Your task to perform on an android device: Search for "sony triple a" on target.com, select the first entry, and add it to the cart. Image 0: 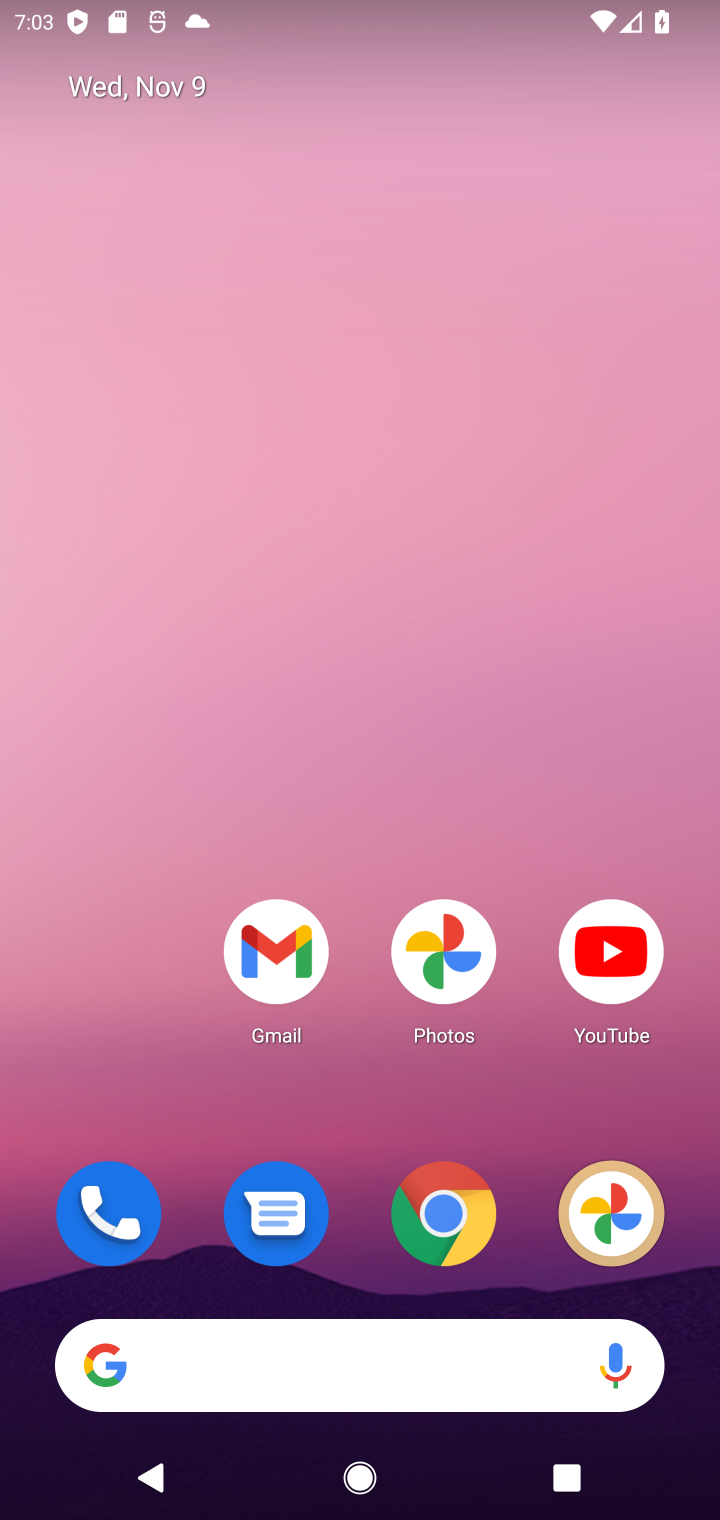
Step 0: click (450, 1215)
Your task to perform on an android device: Search for "sony triple a" on target.com, select the first entry, and add it to the cart. Image 1: 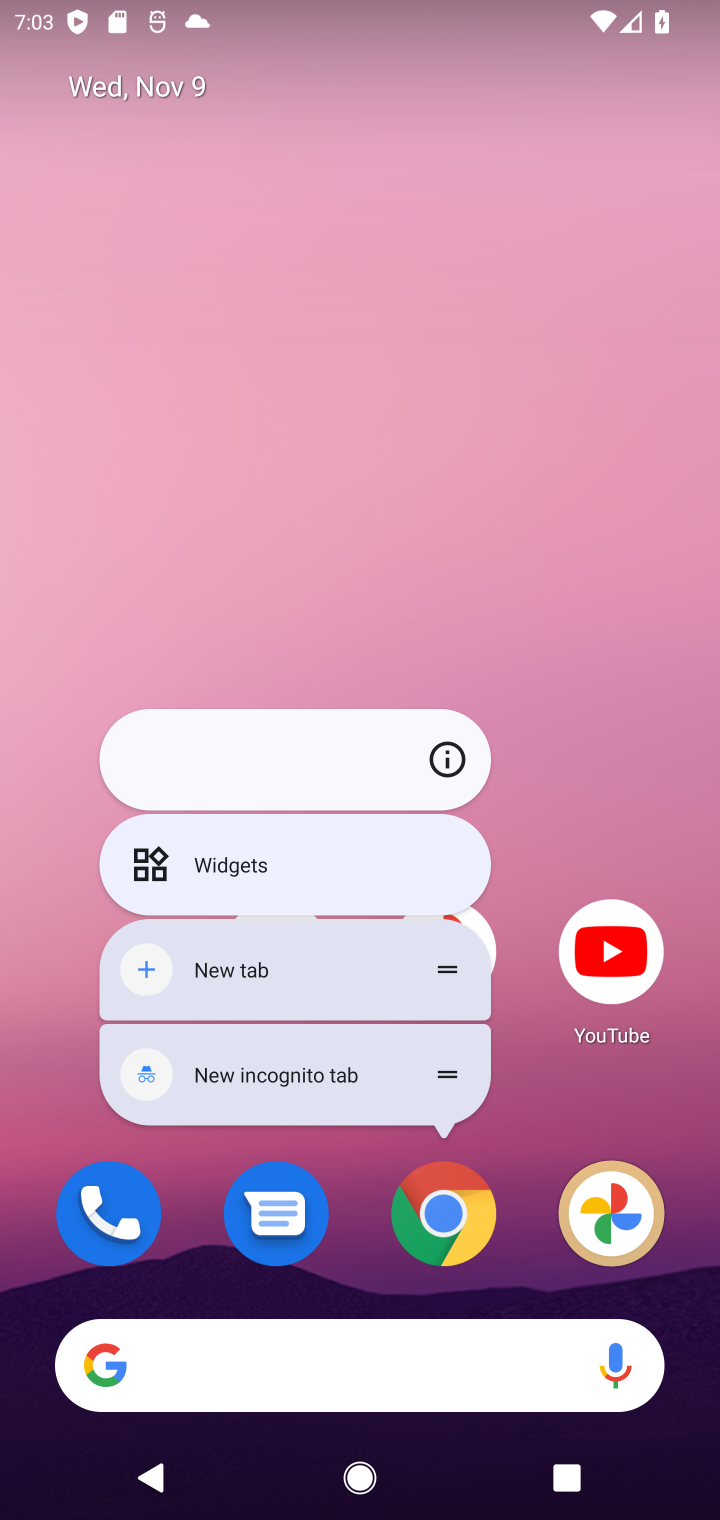
Step 1: click (457, 1213)
Your task to perform on an android device: Search for "sony triple a" on target.com, select the first entry, and add it to the cart. Image 2: 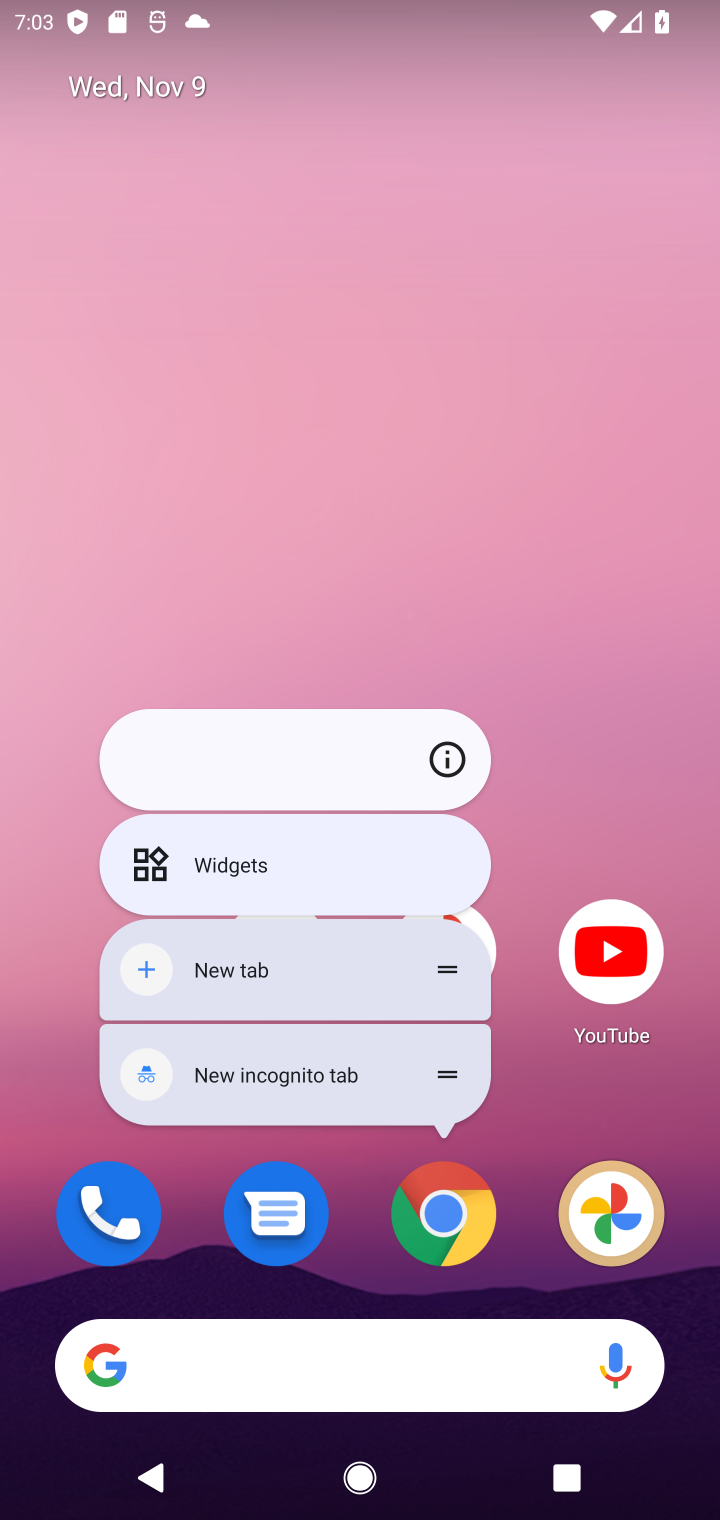
Step 2: click (457, 1213)
Your task to perform on an android device: Search for "sony triple a" on target.com, select the first entry, and add it to the cart. Image 3: 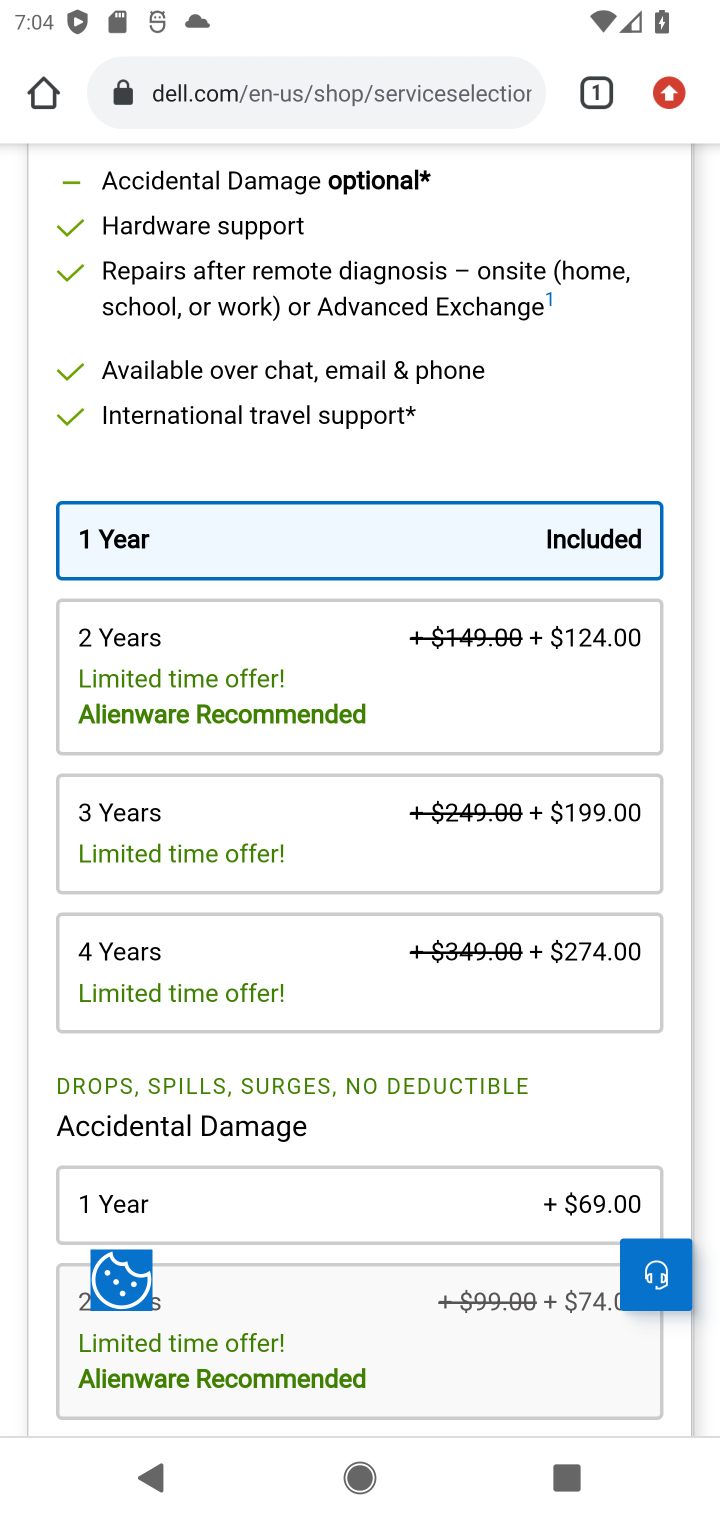
Step 3: click (169, 94)
Your task to perform on an android device: Search for "sony triple a" on target.com, select the first entry, and add it to the cart. Image 4: 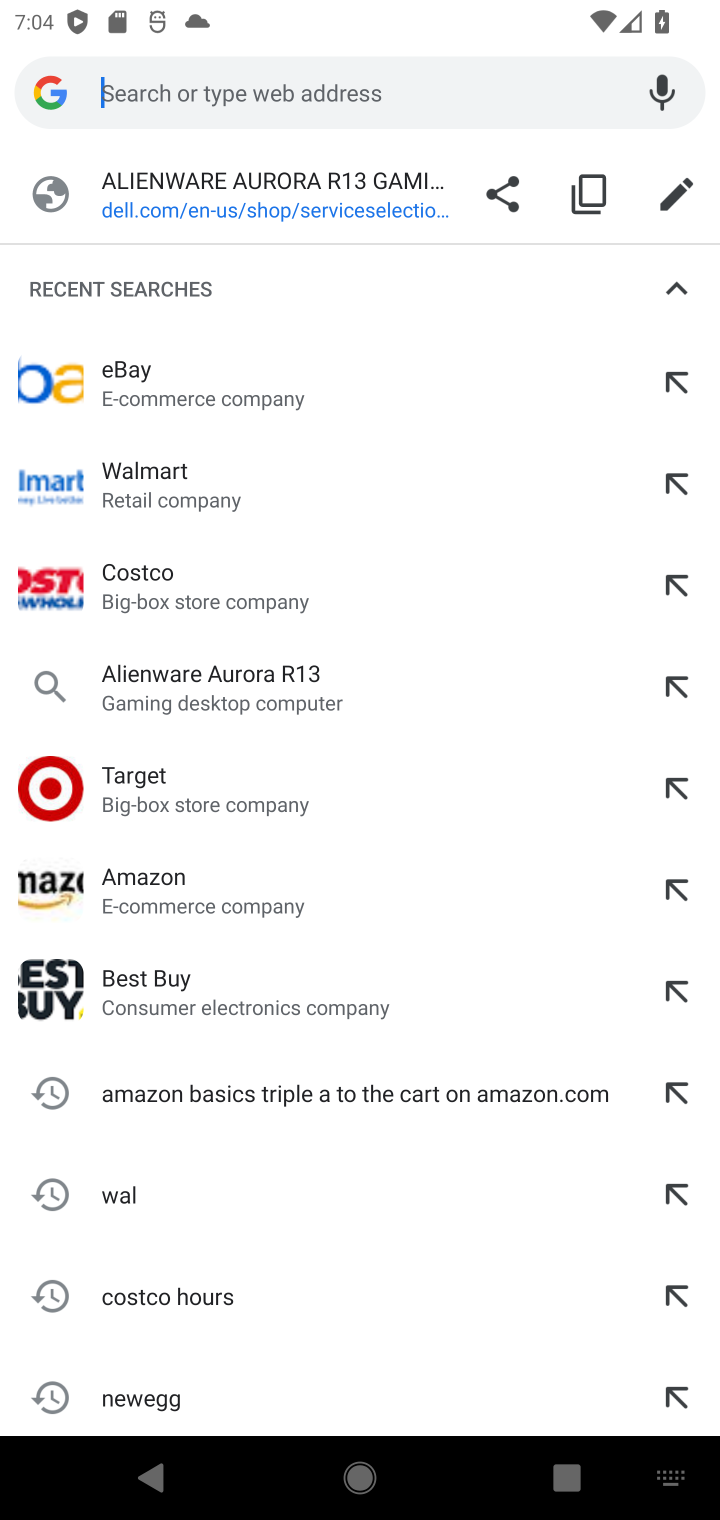
Step 4: type "target"
Your task to perform on an android device: Search for "sony triple a" on target.com, select the first entry, and add it to the cart. Image 5: 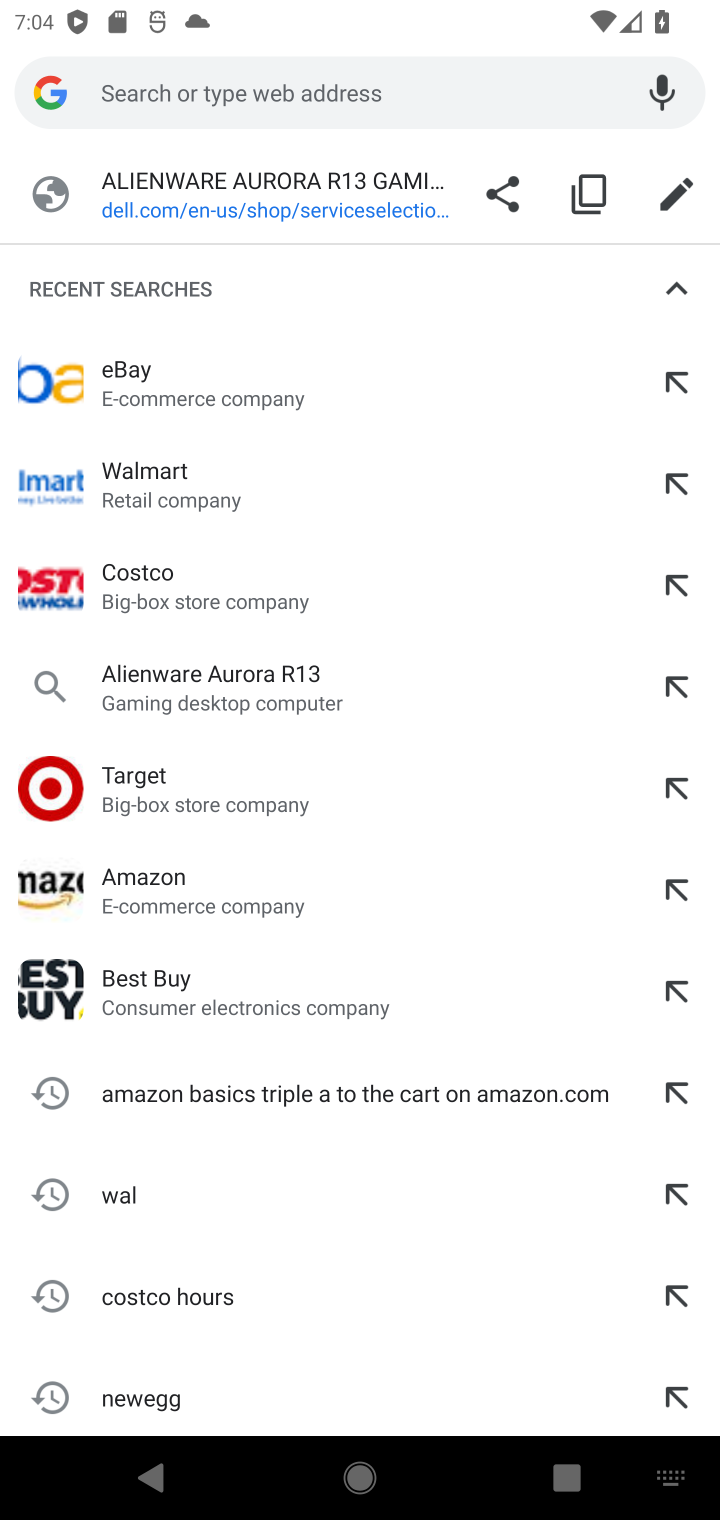
Step 5: click (154, 785)
Your task to perform on an android device: Search for "sony triple a" on target.com, select the first entry, and add it to the cart. Image 6: 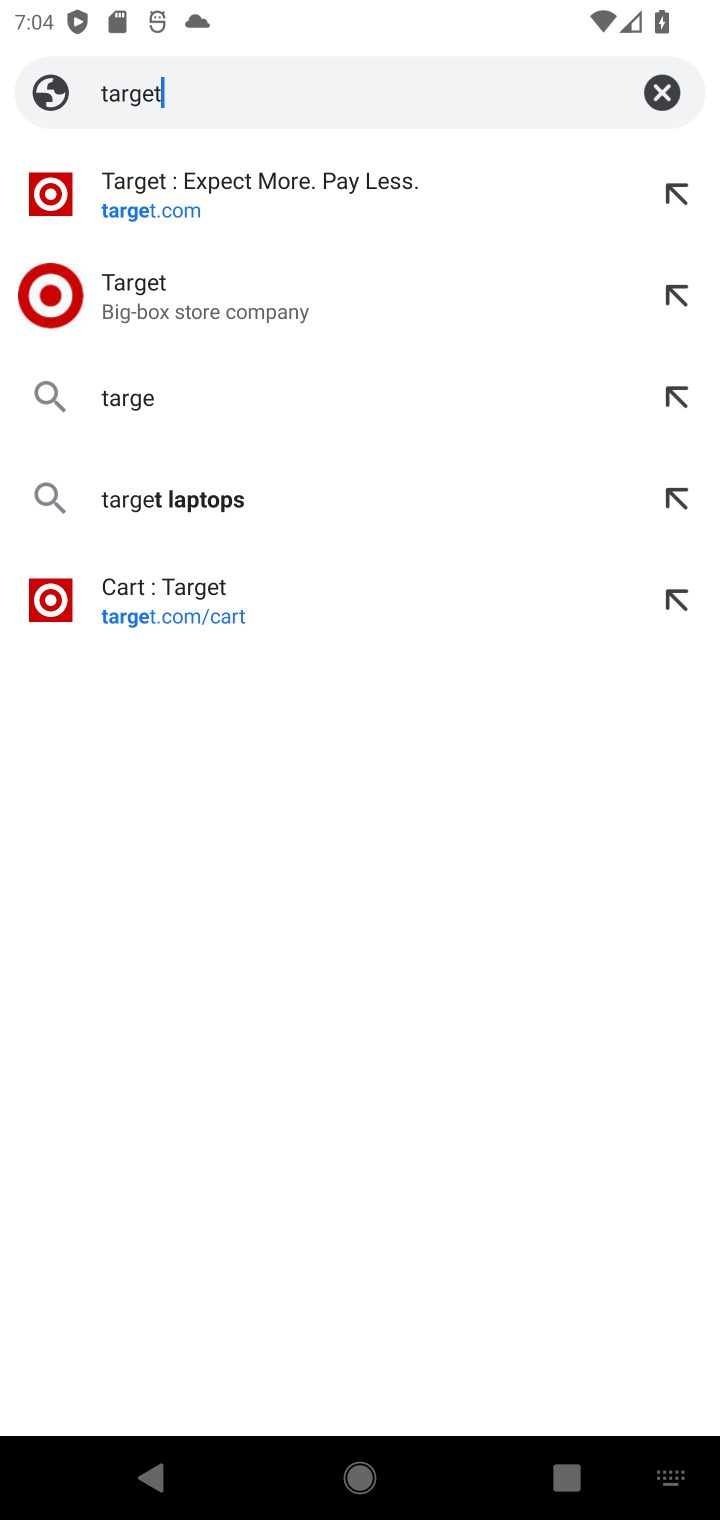
Step 6: click (135, 292)
Your task to perform on an android device: Search for "sony triple a" on target.com, select the first entry, and add it to the cart. Image 7: 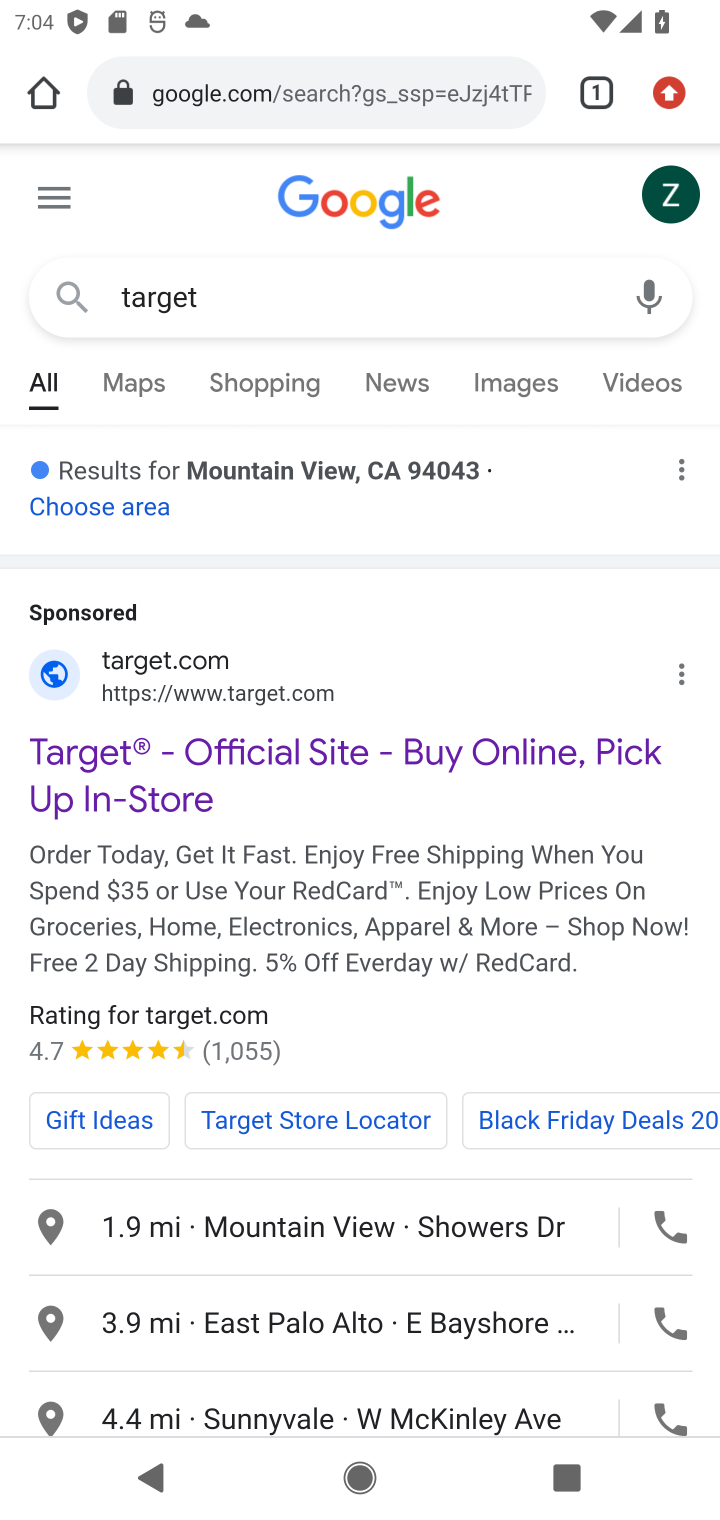
Step 7: drag from (295, 1001) to (382, 389)
Your task to perform on an android device: Search for "sony triple a" on target.com, select the first entry, and add it to the cart. Image 8: 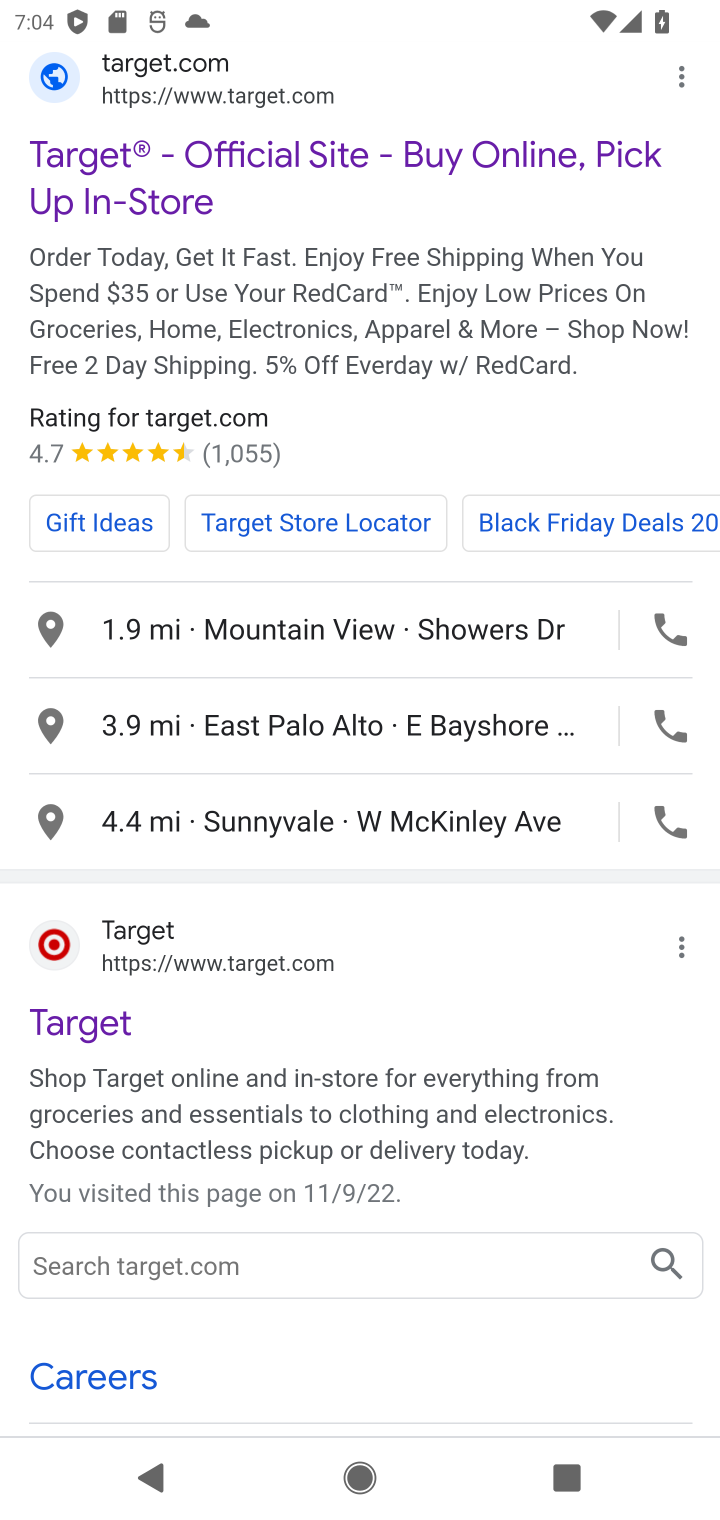
Step 8: click (88, 1034)
Your task to perform on an android device: Search for "sony triple a" on target.com, select the first entry, and add it to the cart. Image 9: 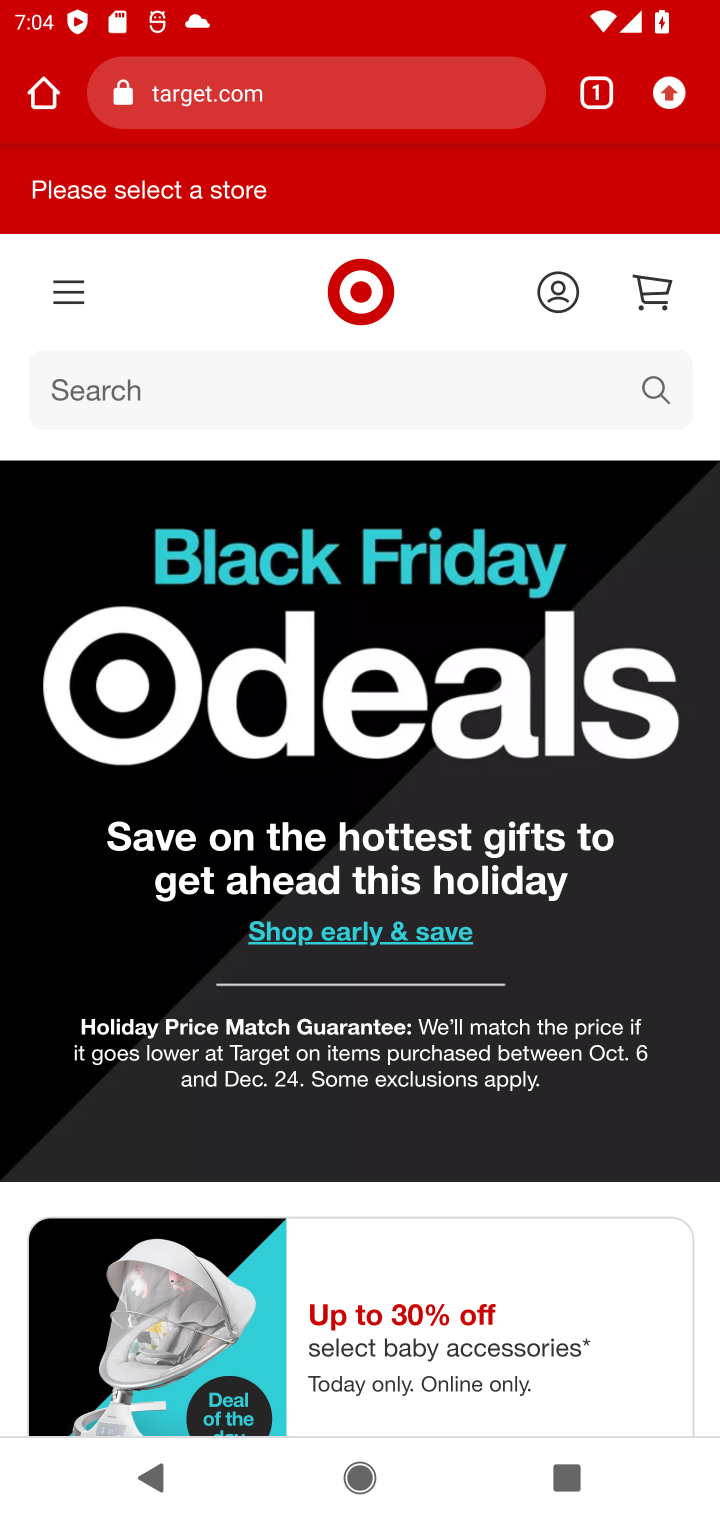
Step 9: click (224, 399)
Your task to perform on an android device: Search for "sony triple a" on target.com, select the first entry, and add it to the cart. Image 10: 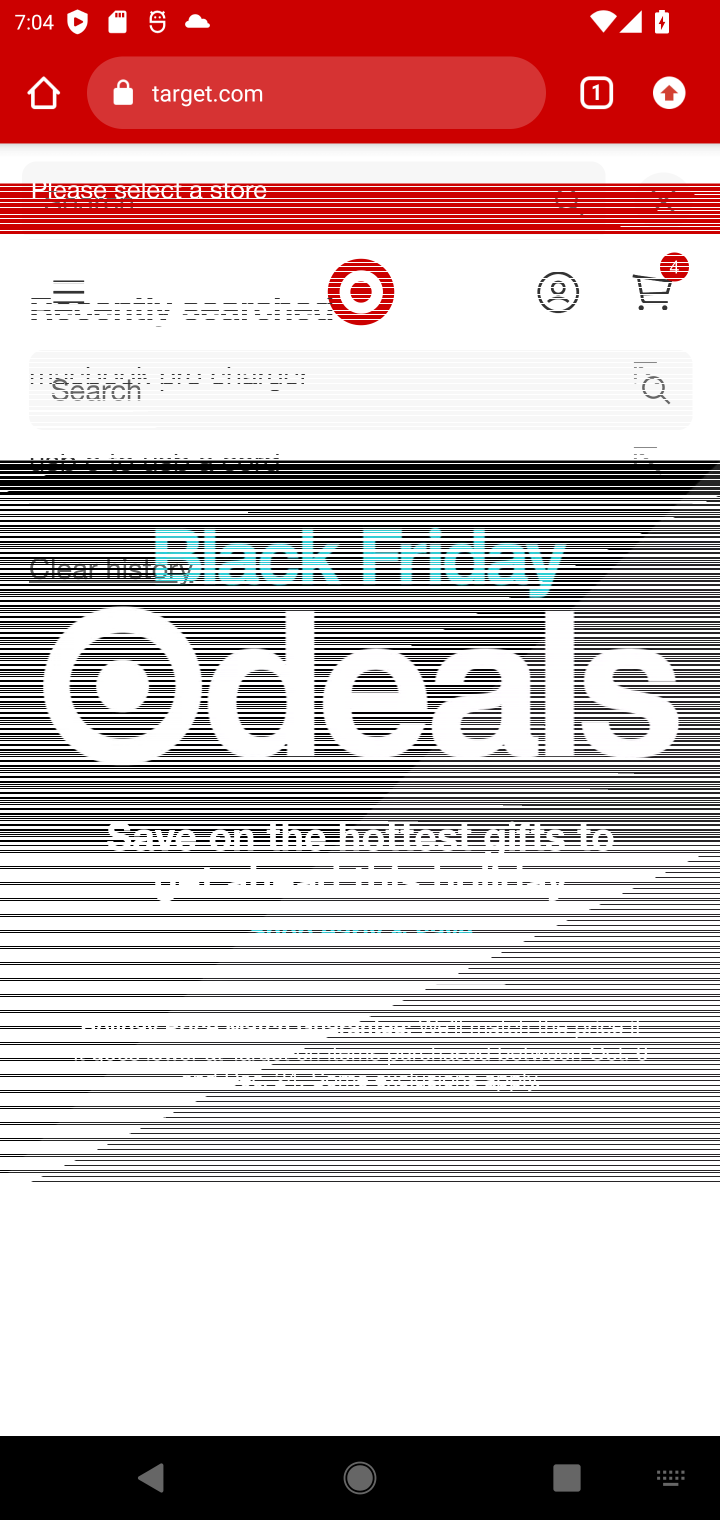
Step 10: type "sony triple"
Your task to perform on an android device: Search for "sony triple a" on target.com, select the first entry, and add it to the cart. Image 11: 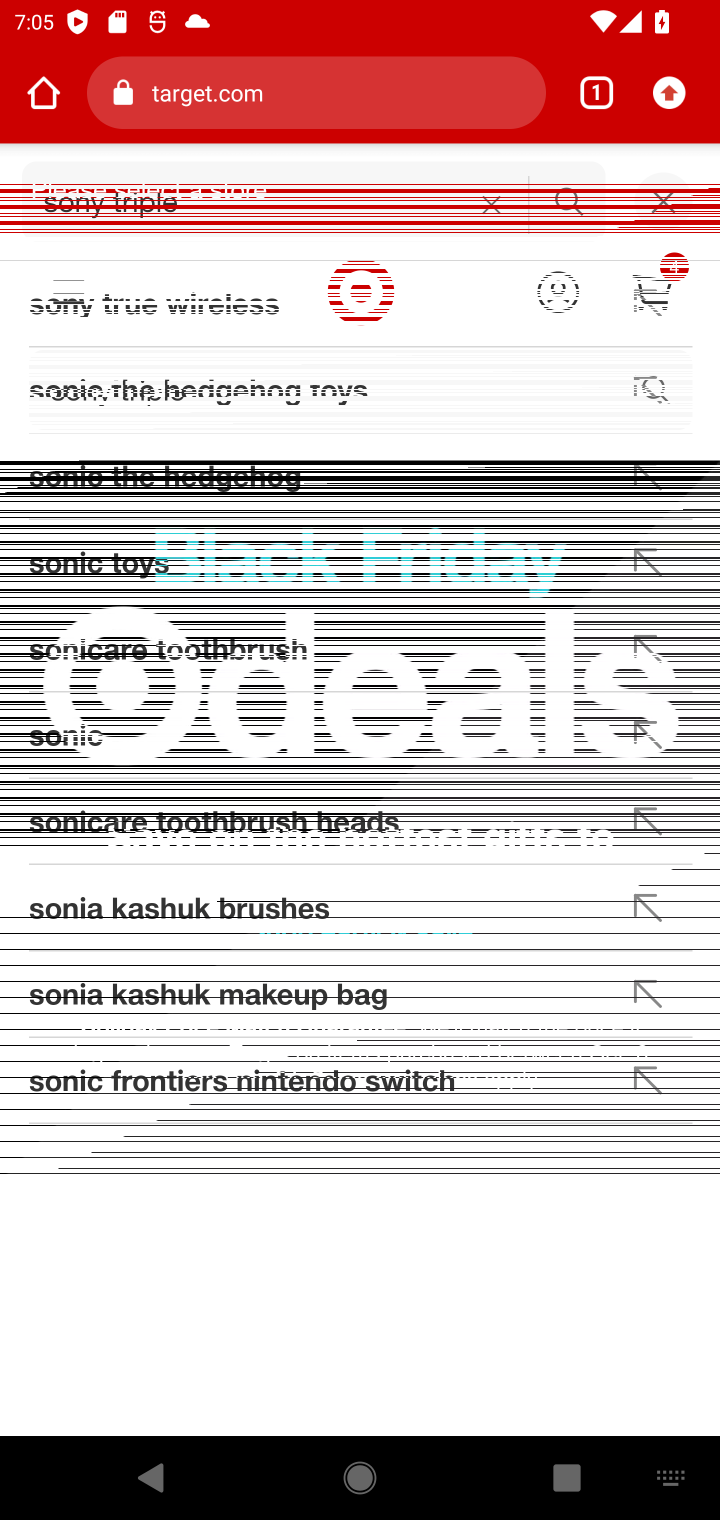
Step 11: click (134, 310)
Your task to perform on an android device: Search for "sony triple a" on target.com, select the first entry, and add it to the cart. Image 12: 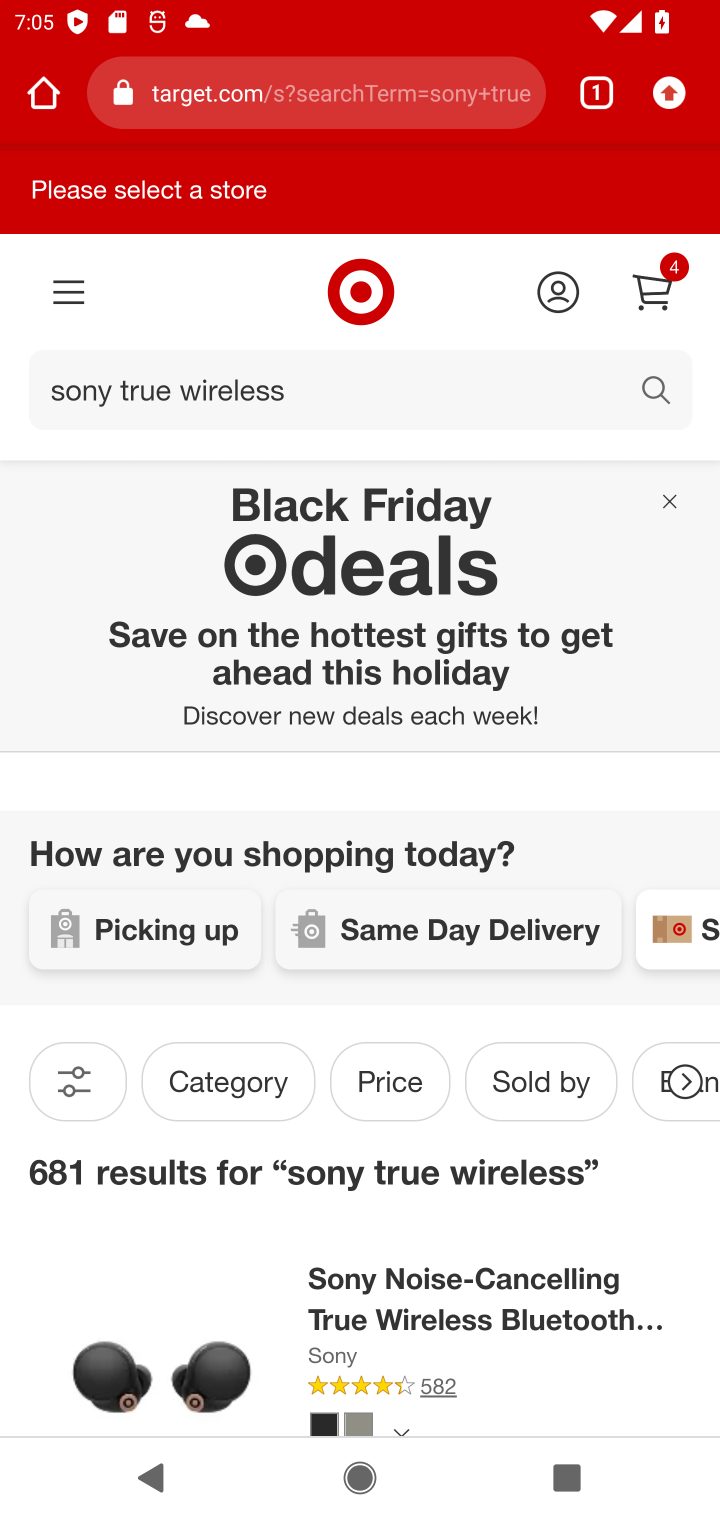
Step 12: click (497, 1309)
Your task to perform on an android device: Search for "sony triple a" on target.com, select the first entry, and add it to the cart. Image 13: 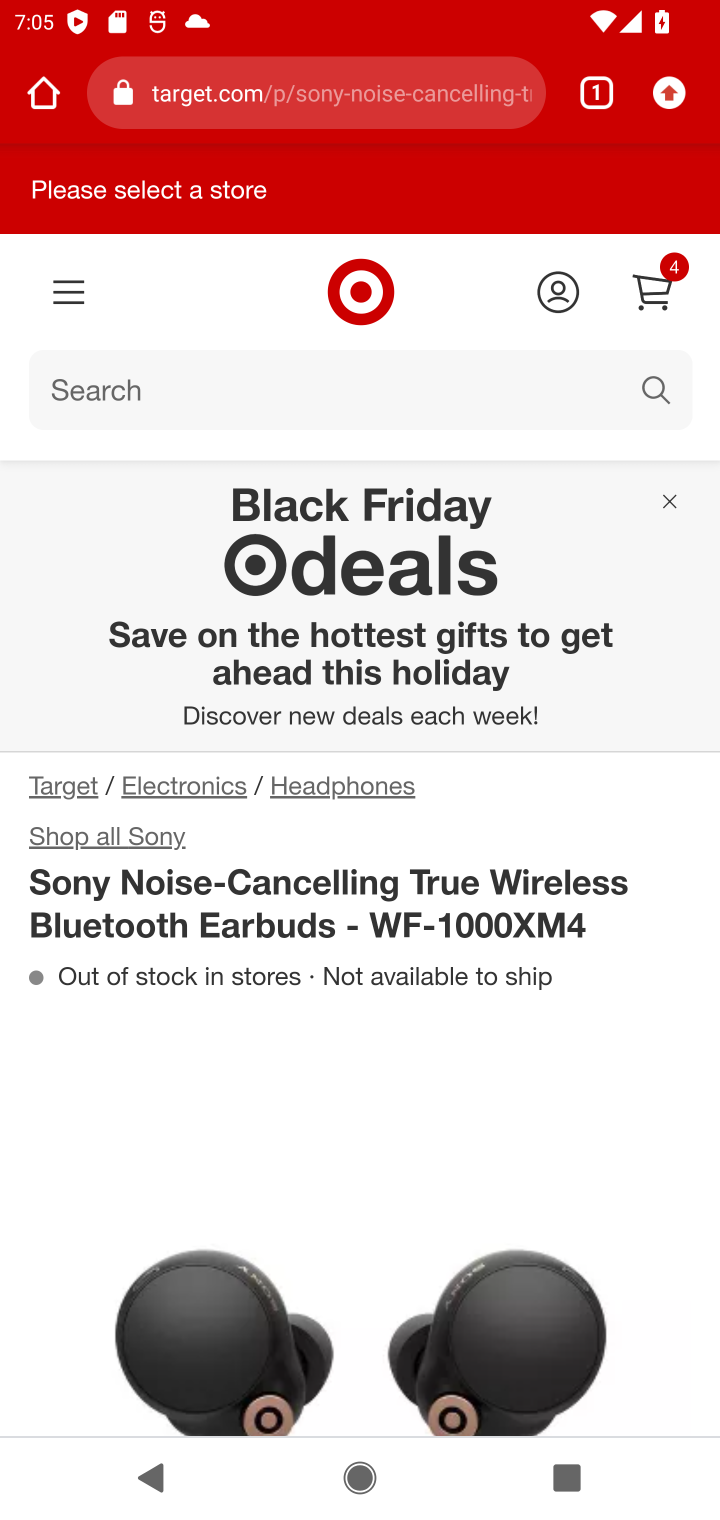
Step 13: drag from (357, 1093) to (391, 588)
Your task to perform on an android device: Search for "sony triple a" on target.com, select the first entry, and add it to the cart. Image 14: 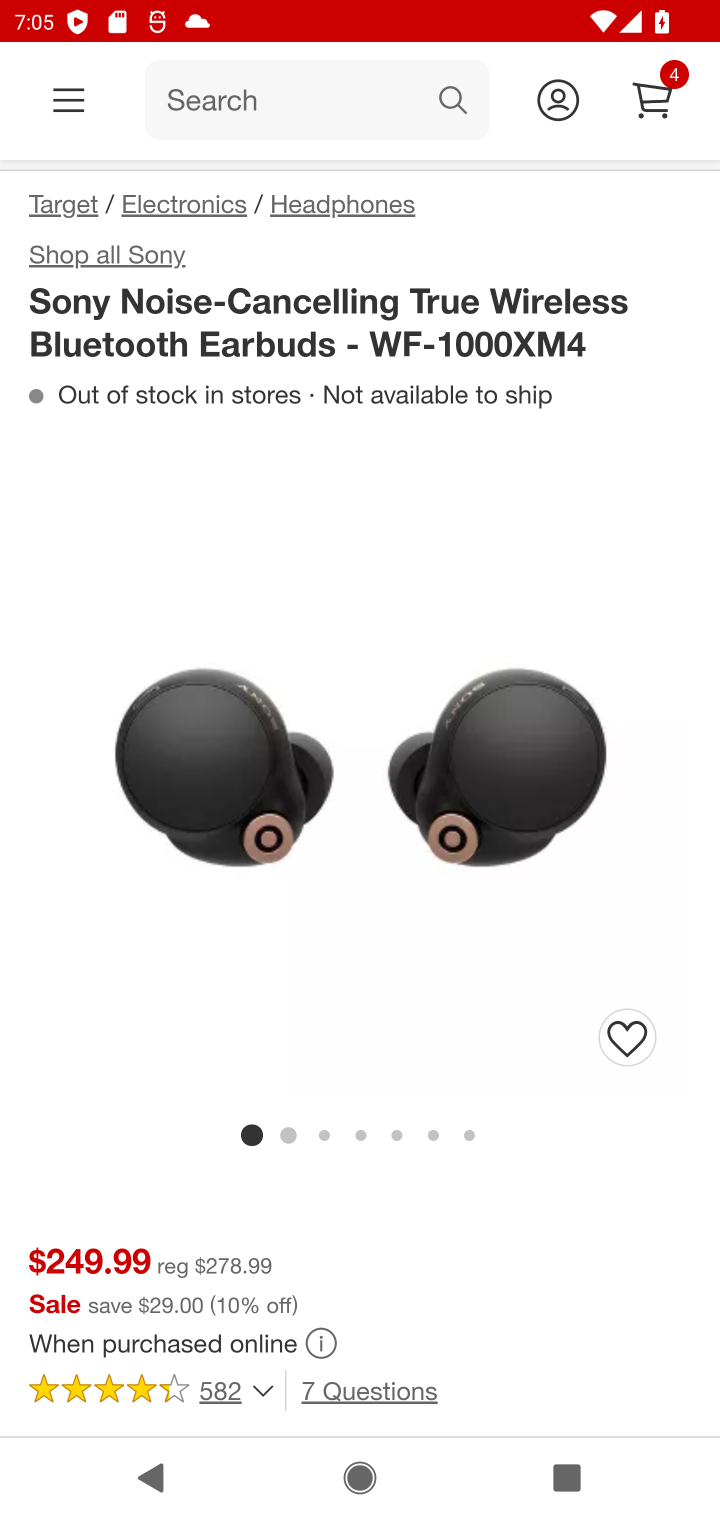
Step 14: drag from (394, 1160) to (476, 227)
Your task to perform on an android device: Search for "sony triple a" on target.com, select the first entry, and add it to the cart. Image 15: 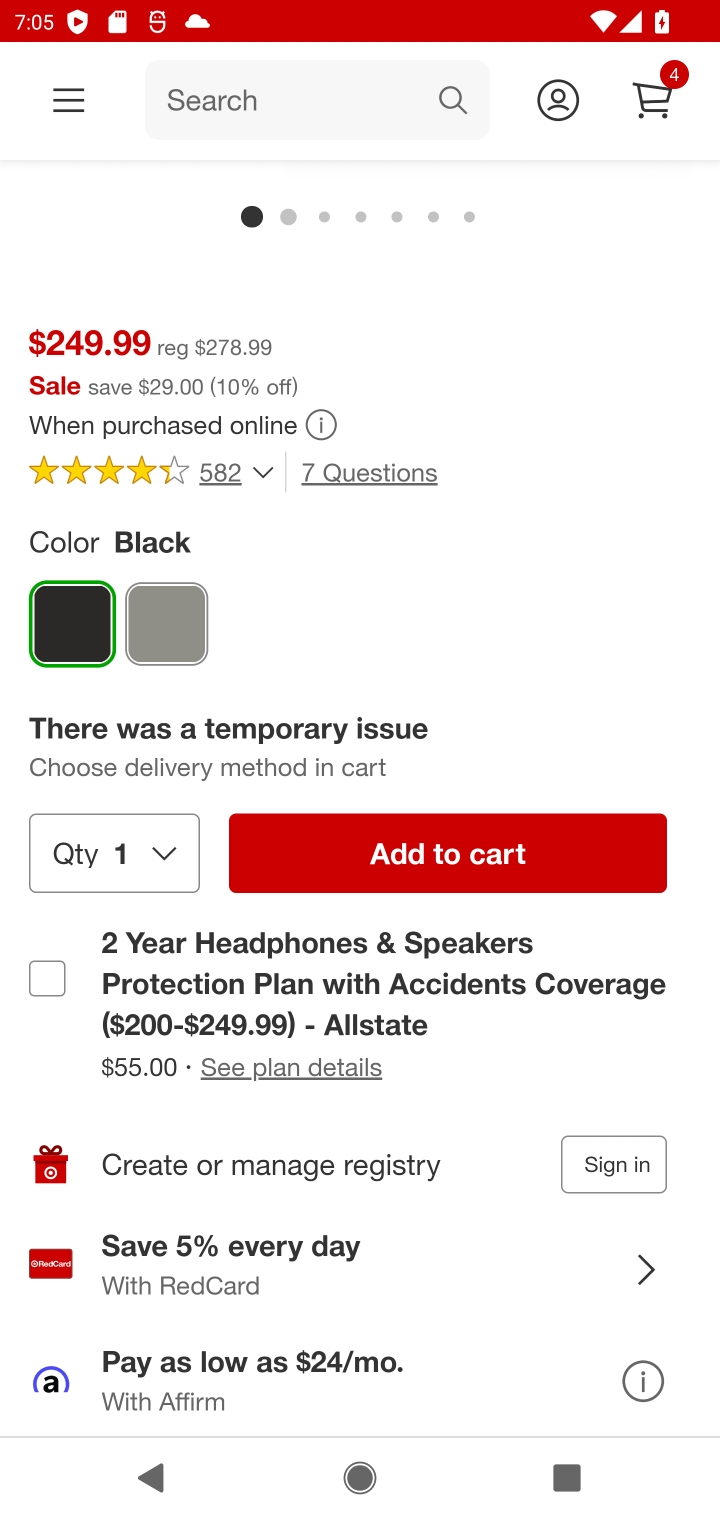
Step 15: click (437, 861)
Your task to perform on an android device: Search for "sony triple a" on target.com, select the first entry, and add it to the cart. Image 16: 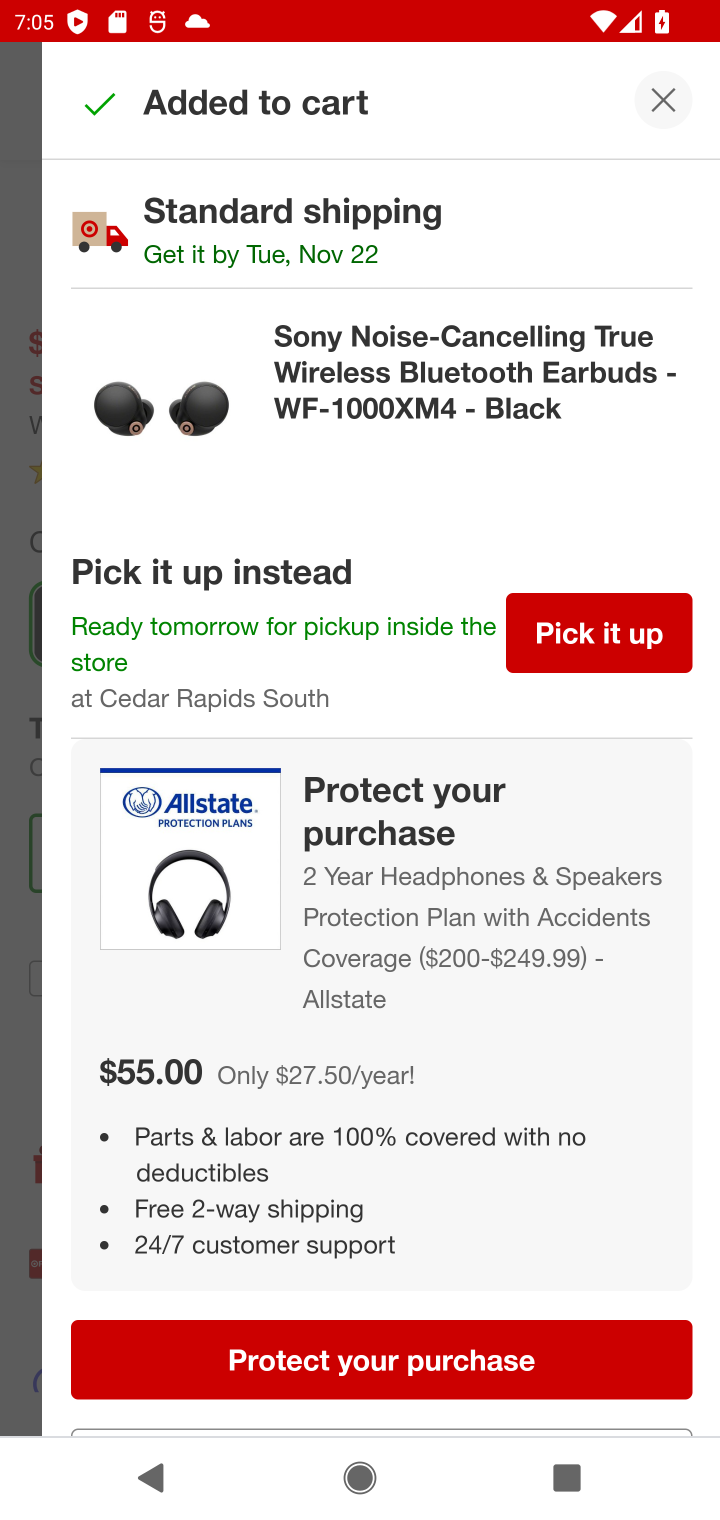
Step 16: click (373, 1358)
Your task to perform on an android device: Search for "sony triple a" on target.com, select the first entry, and add it to the cart. Image 17: 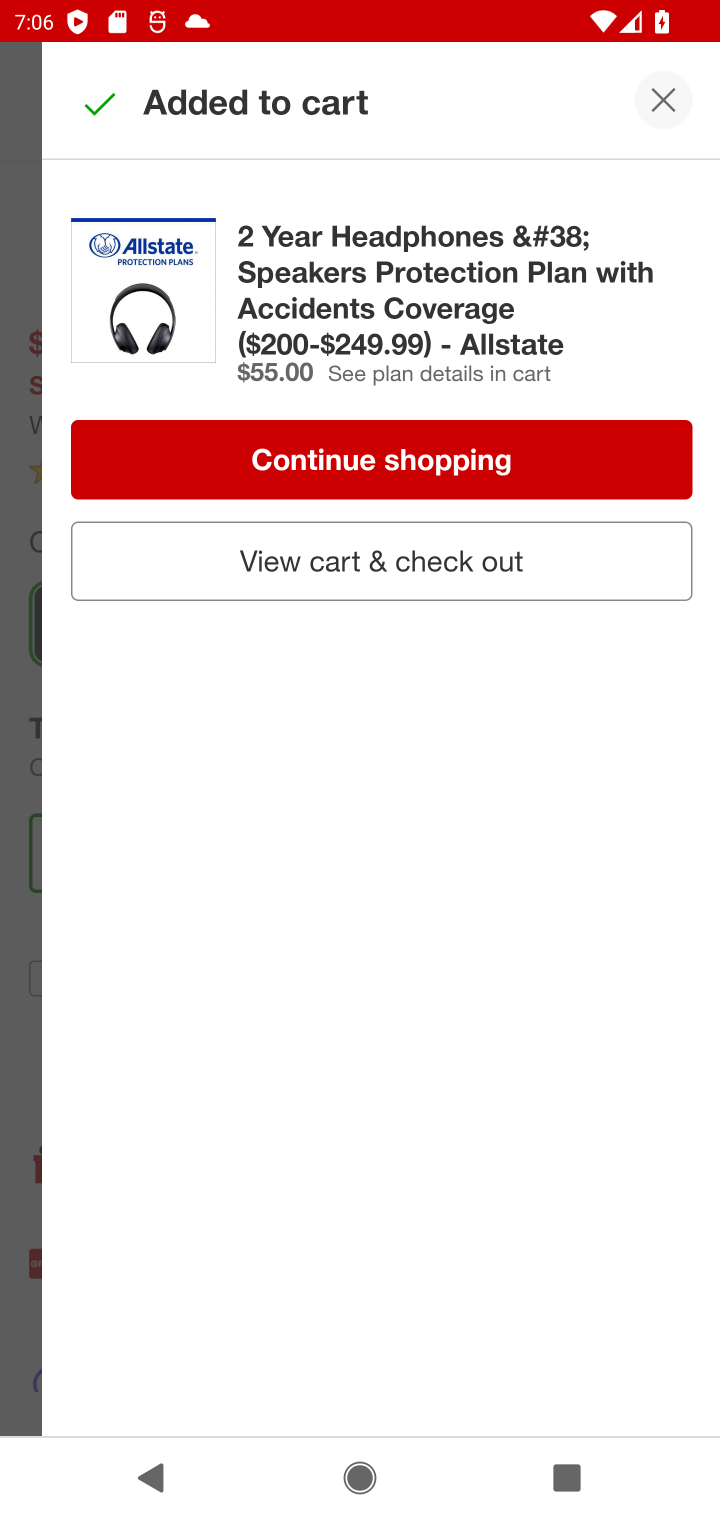
Step 17: click (319, 561)
Your task to perform on an android device: Search for "sony triple a" on target.com, select the first entry, and add it to the cart. Image 18: 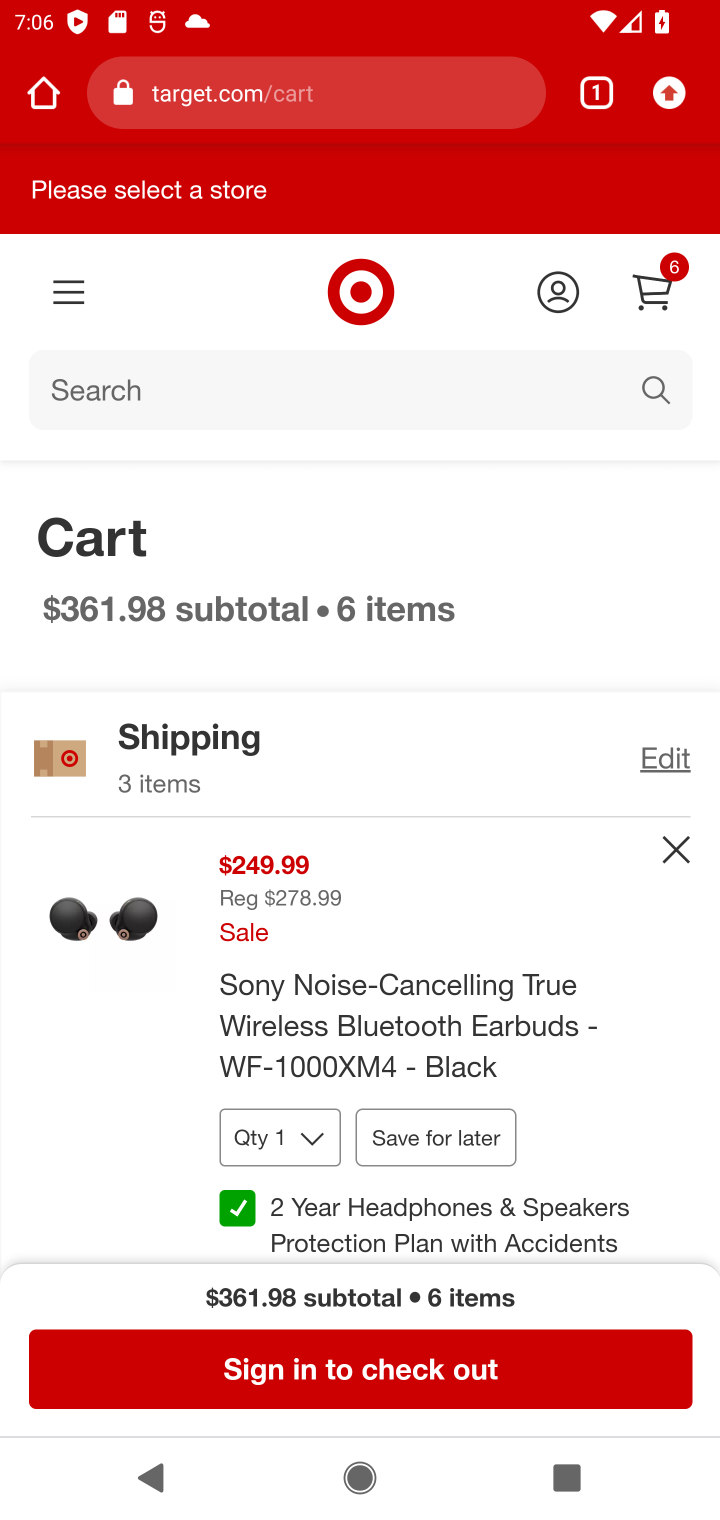
Step 18: task complete